Your task to perform on an android device: toggle notifications settings in the gmail app Image 0: 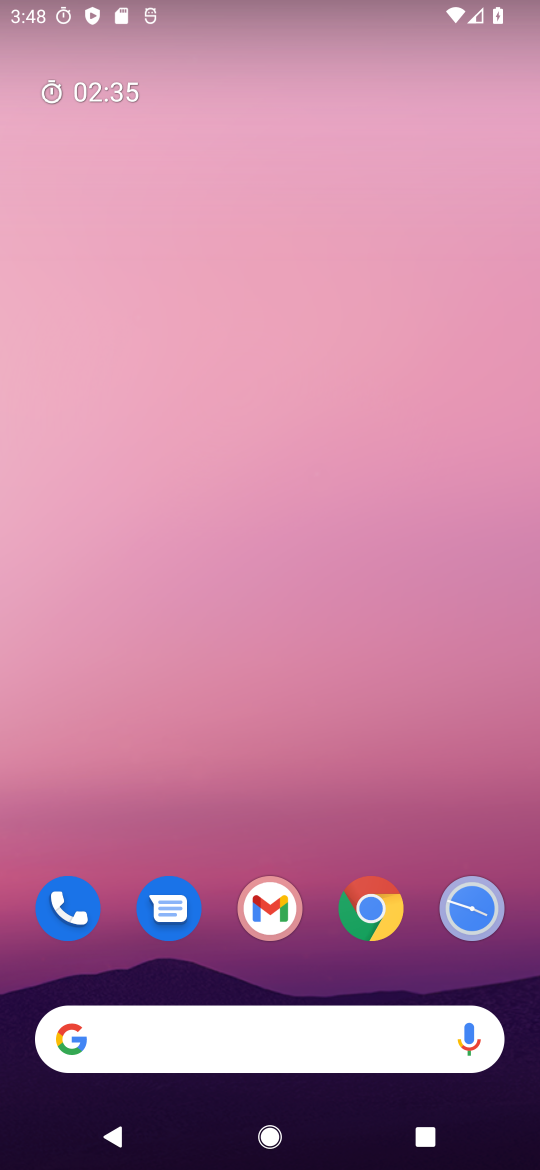
Step 0: press home button
Your task to perform on an android device: toggle notifications settings in the gmail app Image 1: 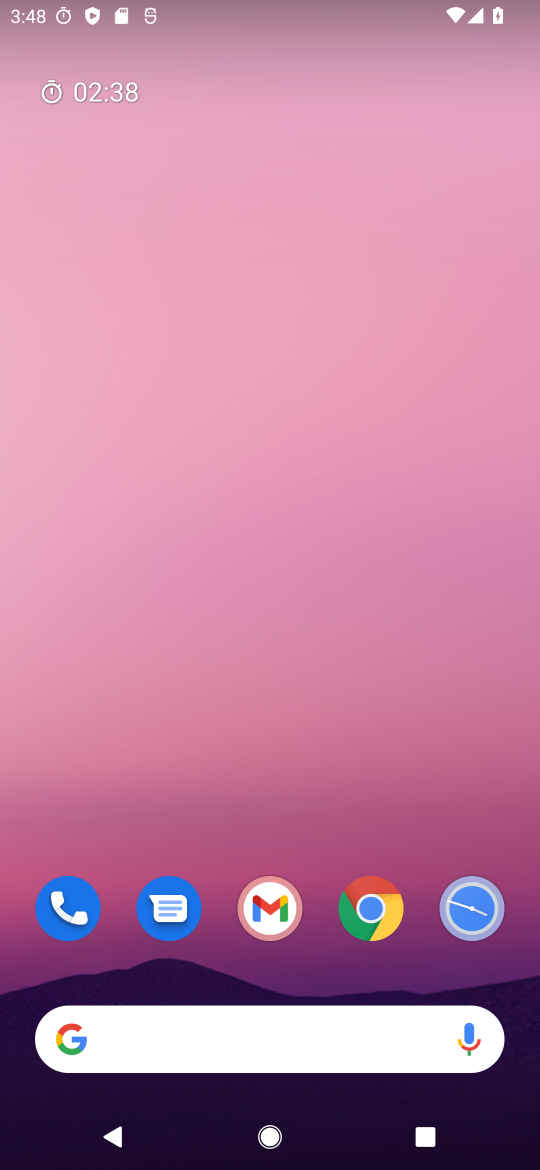
Step 1: click (268, 898)
Your task to perform on an android device: toggle notifications settings in the gmail app Image 2: 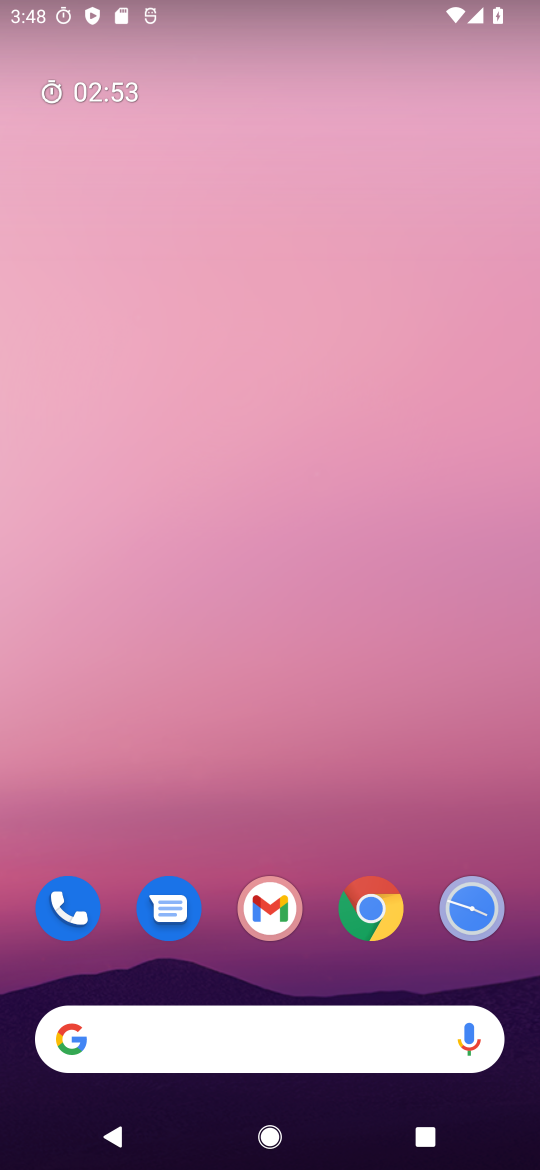
Step 2: click (269, 914)
Your task to perform on an android device: toggle notifications settings in the gmail app Image 3: 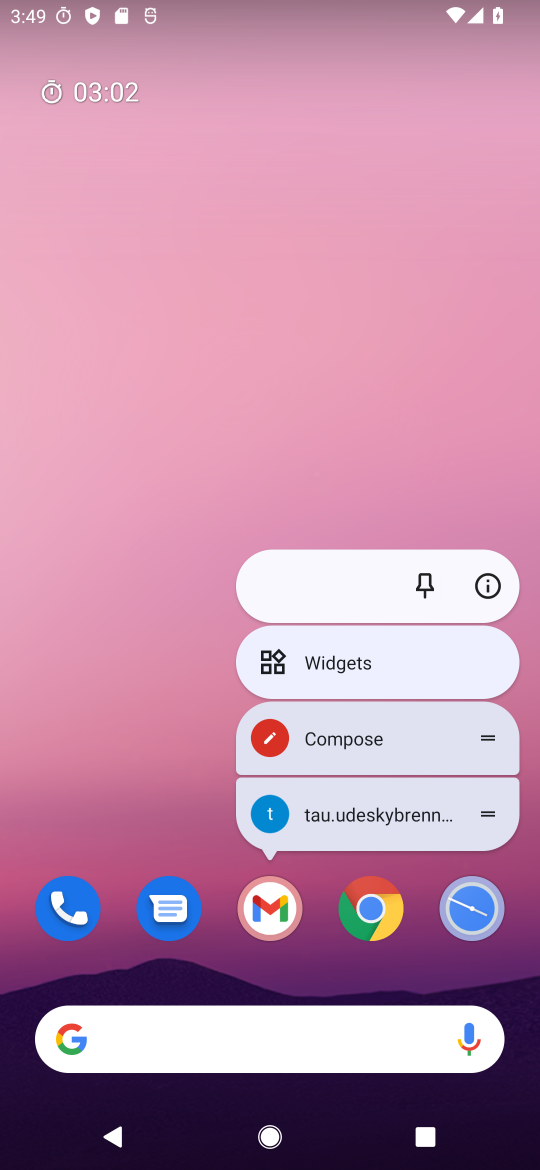
Step 3: click (272, 915)
Your task to perform on an android device: toggle notifications settings in the gmail app Image 4: 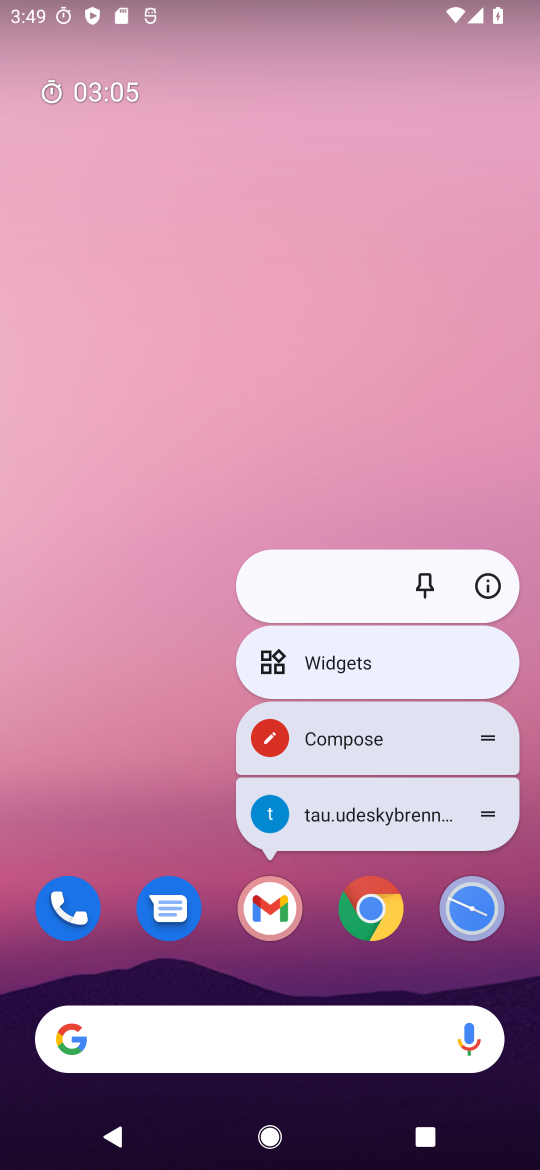
Step 4: click (195, 844)
Your task to perform on an android device: toggle notifications settings in the gmail app Image 5: 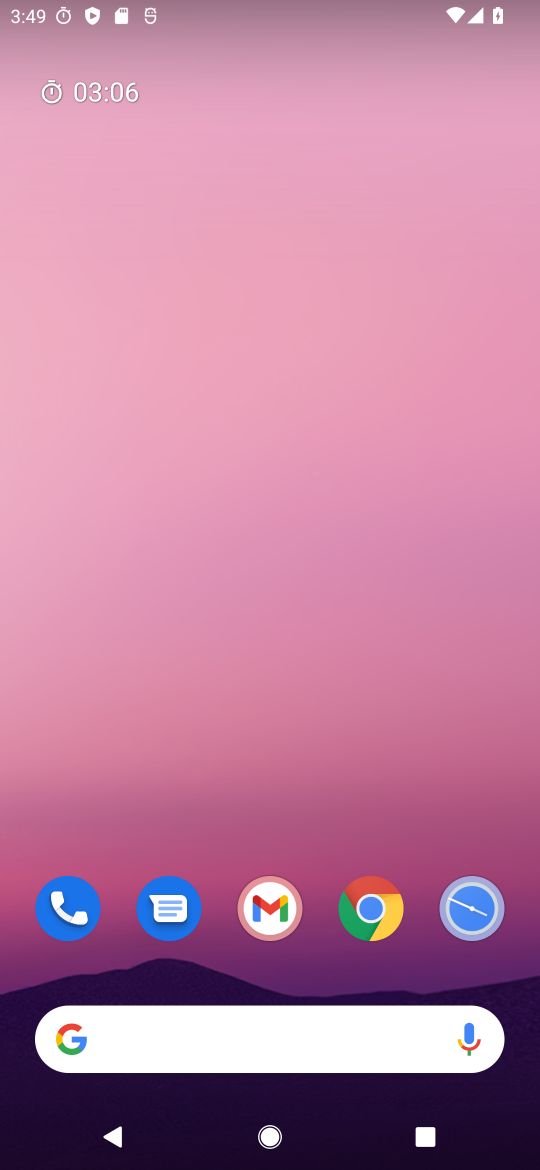
Step 5: drag from (132, 849) to (184, 342)
Your task to perform on an android device: toggle notifications settings in the gmail app Image 6: 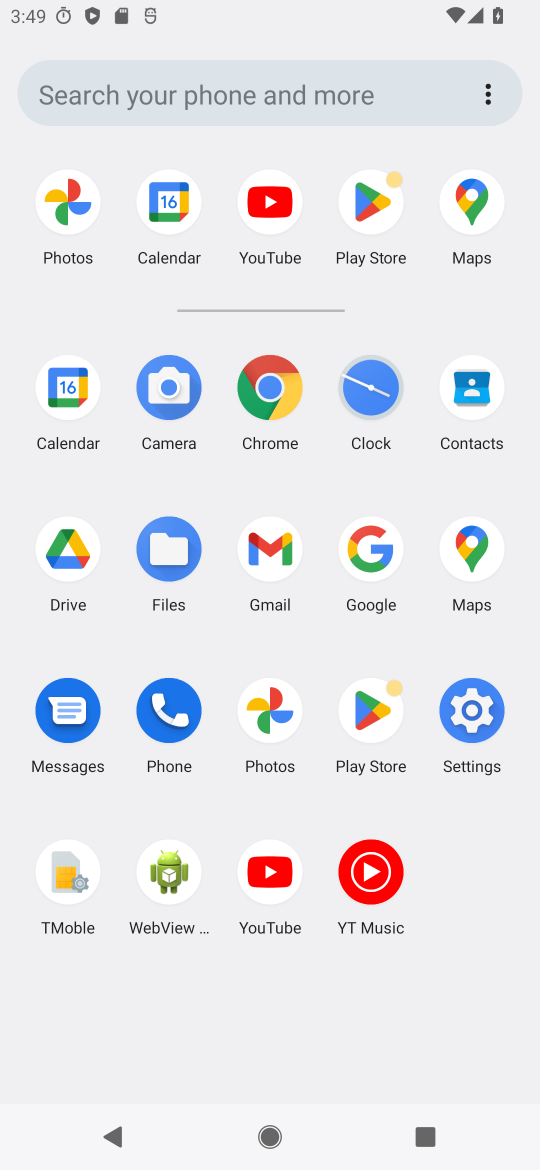
Step 6: click (272, 545)
Your task to perform on an android device: toggle notifications settings in the gmail app Image 7: 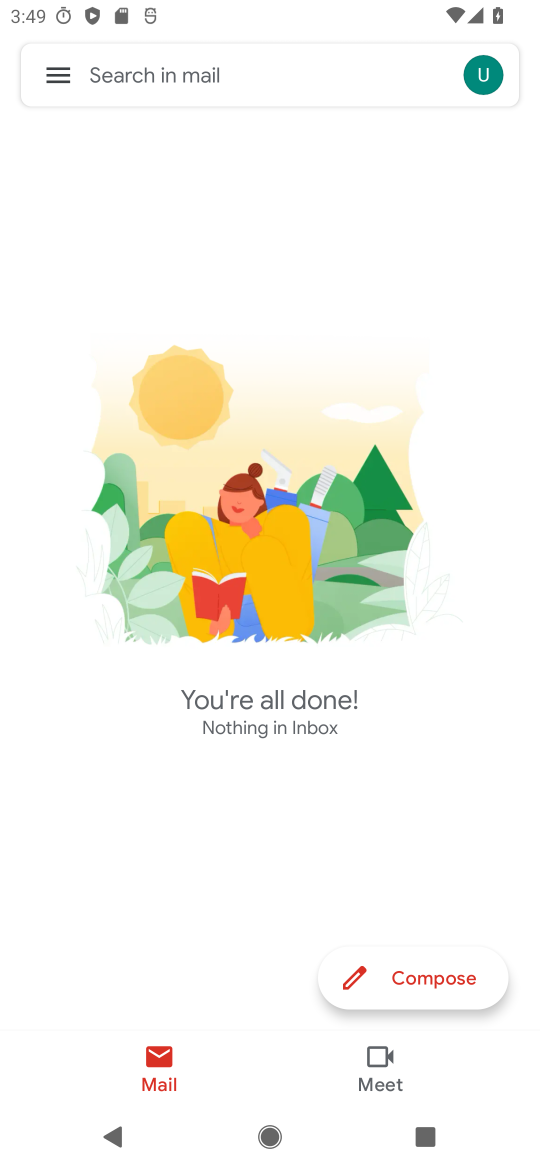
Step 7: click (38, 79)
Your task to perform on an android device: toggle notifications settings in the gmail app Image 8: 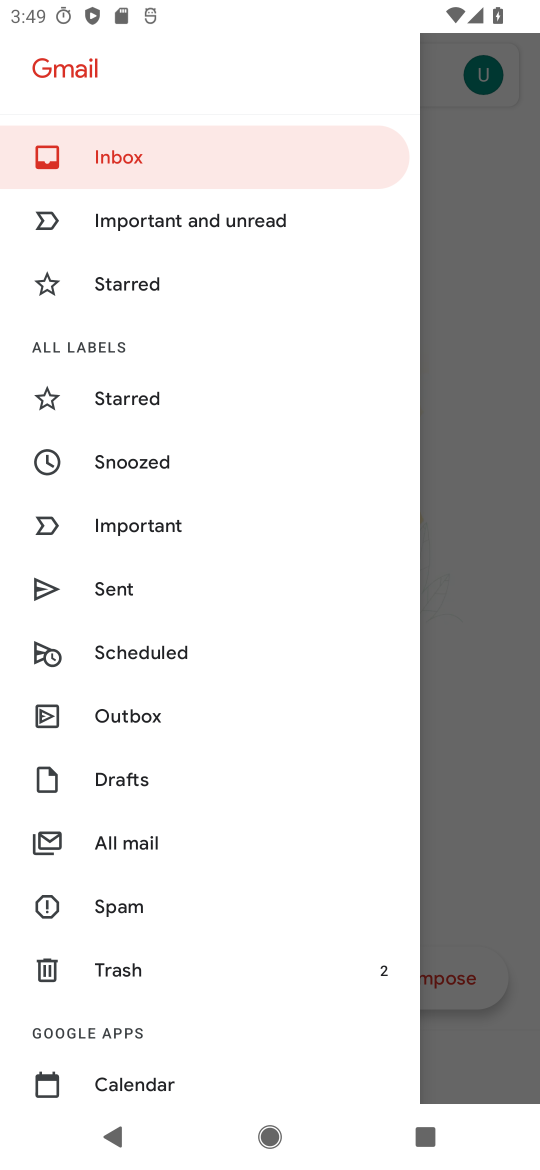
Step 8: drag from (209, 1038) to (209, 197)
Your task to perform on an android device: toggle notifications settings in the gmail app Image 9: 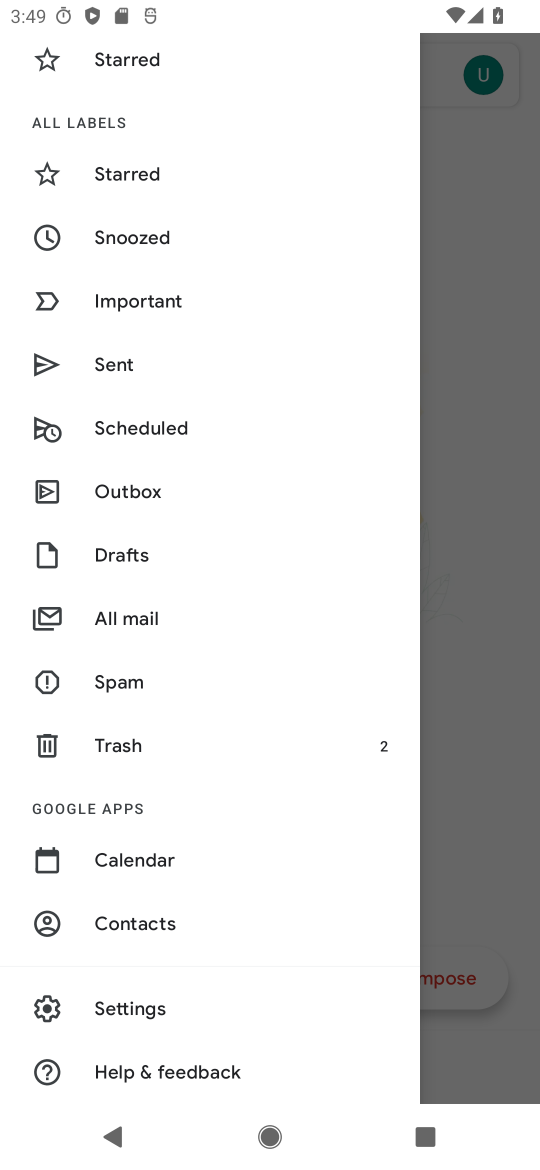
Step 9: click (177, 1006)
Your task to perform on an android device: toggle notifications settings in the gmail app Image 10: 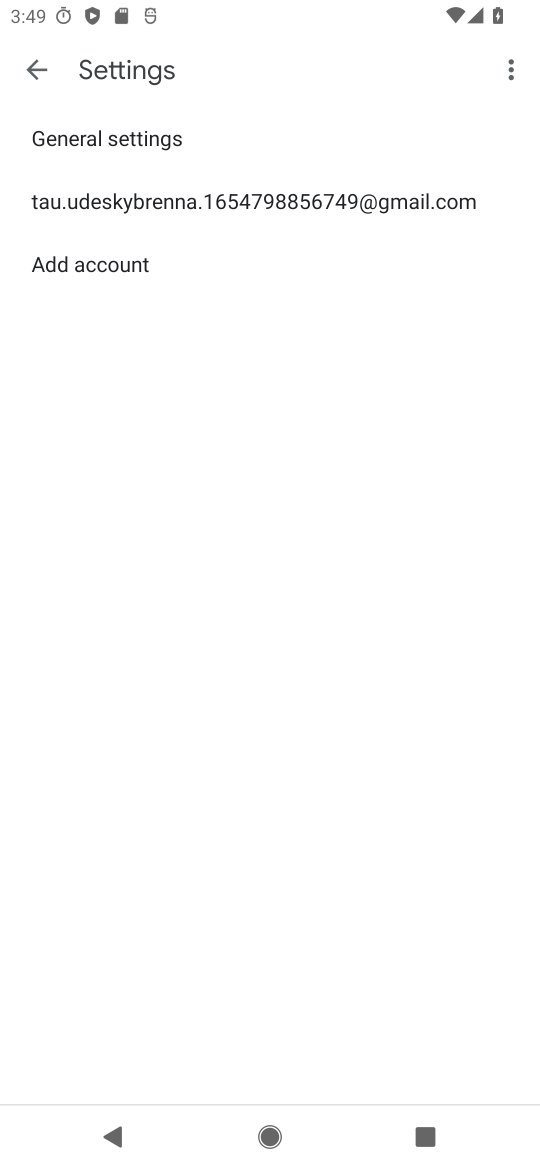
Step 10: click (188, 128)
Your task to perform on an android device: toggle notifications settings in the gmail app Image 11: 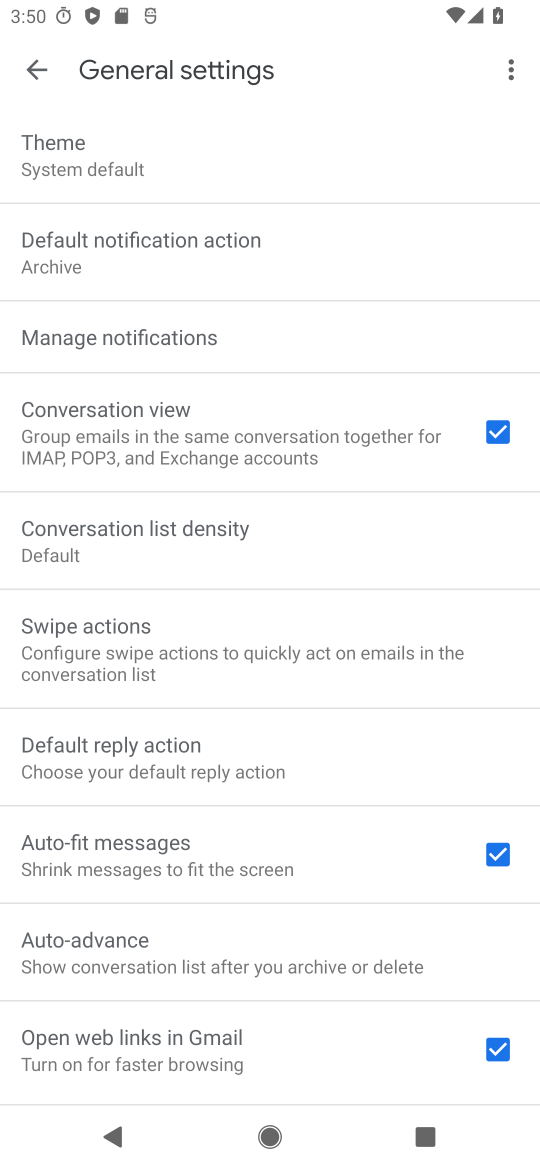
Step 11: click (239, 344)
Your task to perform on an android device: toggle notifications settings in the gmail app Image 12: 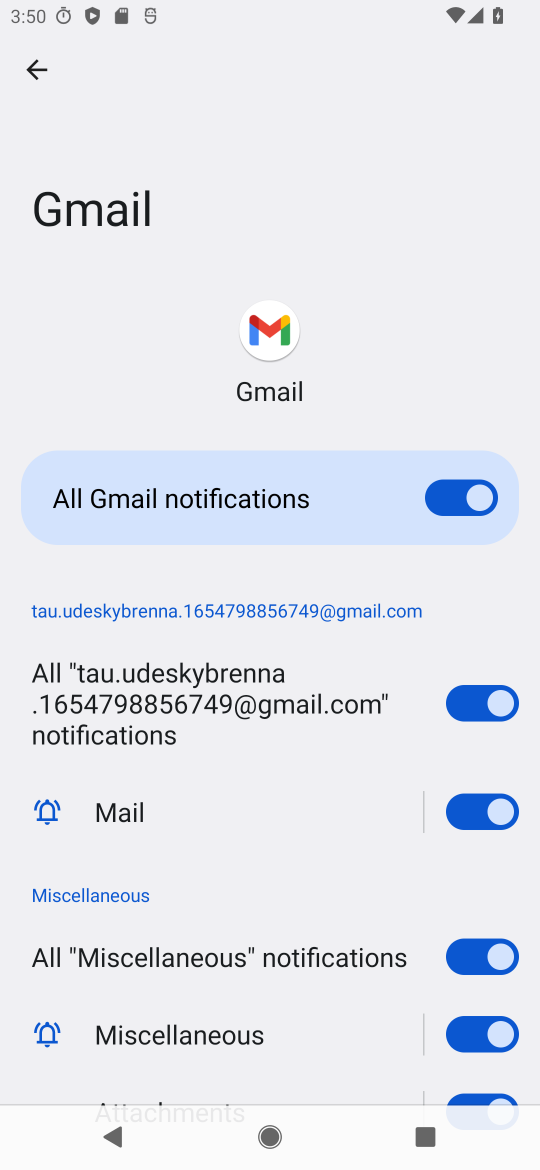
Step 12: click (461, 485)
Your task to perform on an android device: toggle notifications settings in the gmail app Image 13: 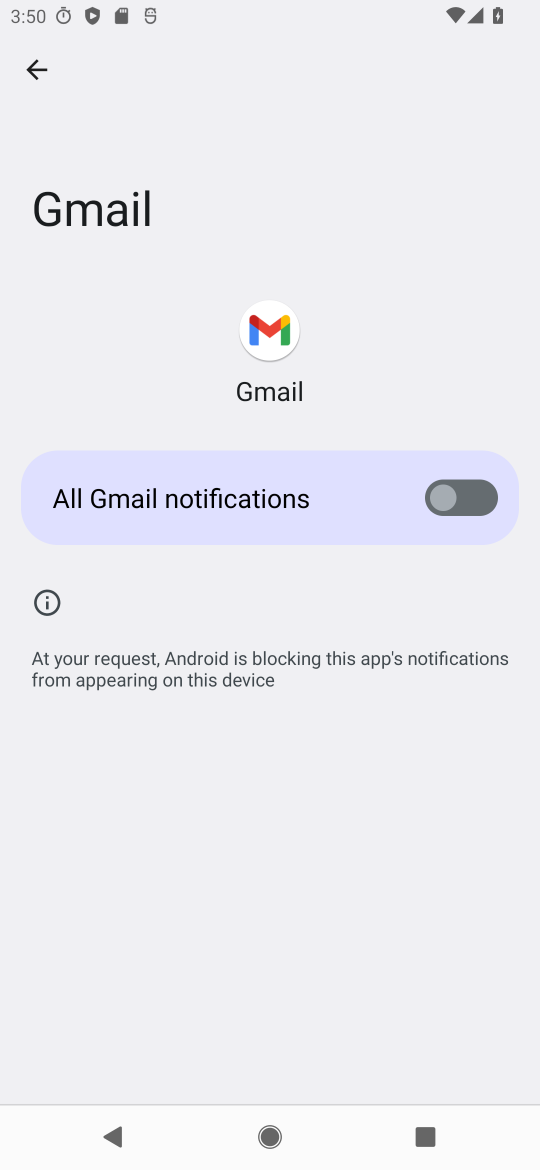
Step 13: task complete